Your task to perform on an android device: Go to network settings Image 0: 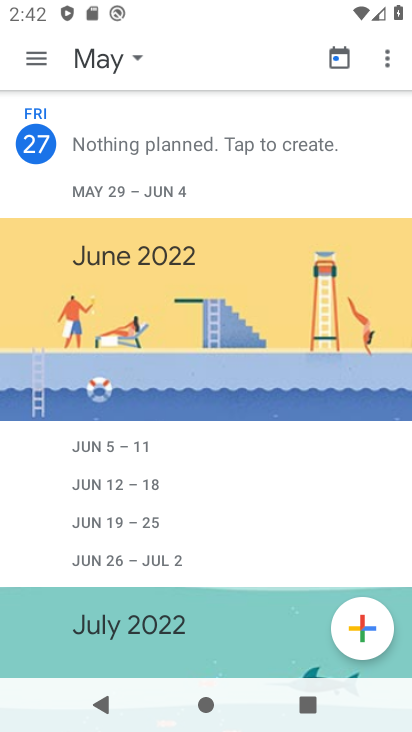
Step 0: press home button
Your task to perform on an android device: Go to network settings Image 1: 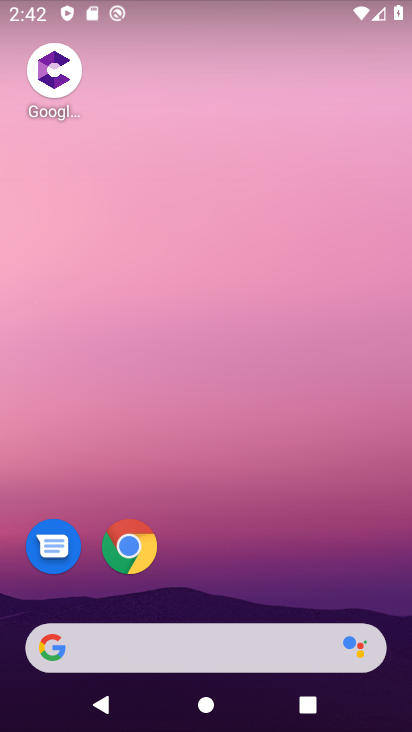
Step 1: drag from (177, 609) to (365, 79)
Your task to perform on an android device: Go to network settings Image 2: 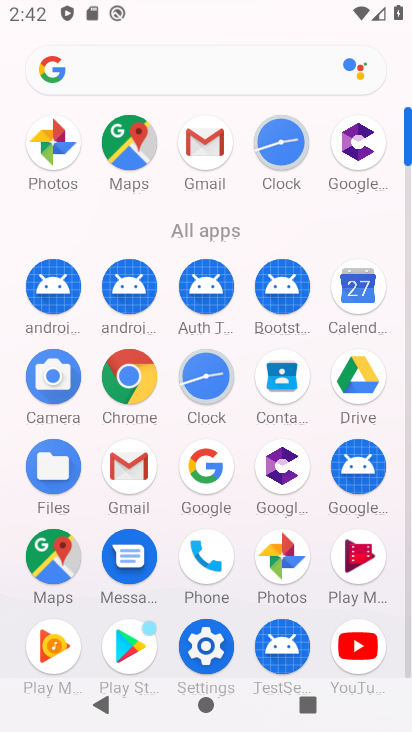
Step 2: drag from (164, 644) to (255, 328)
Your task to perform on an android device: Go to network settings Image 3: 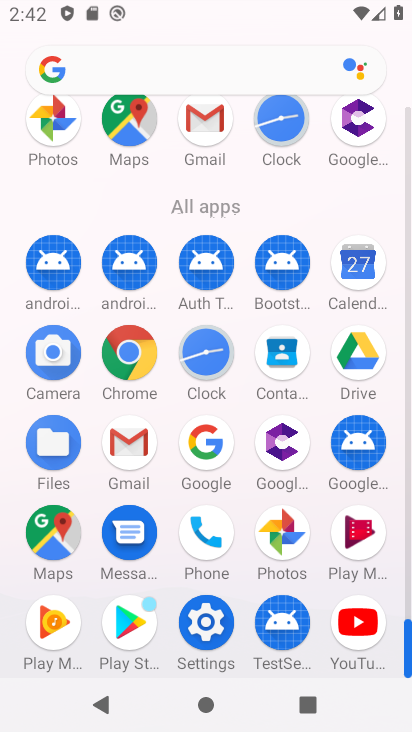
Step 3: click (206, 631)
Your task to perform on an android device: Go to network settings Image 4: 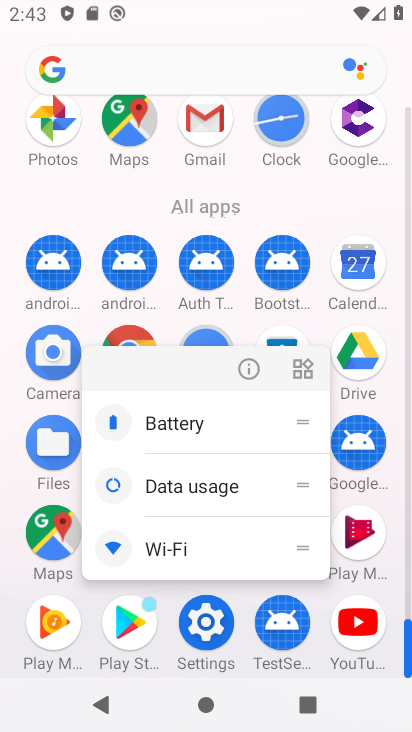
Step 4: click (206, 622)
Your task to perform on an android device: Go to network settings Image 5: 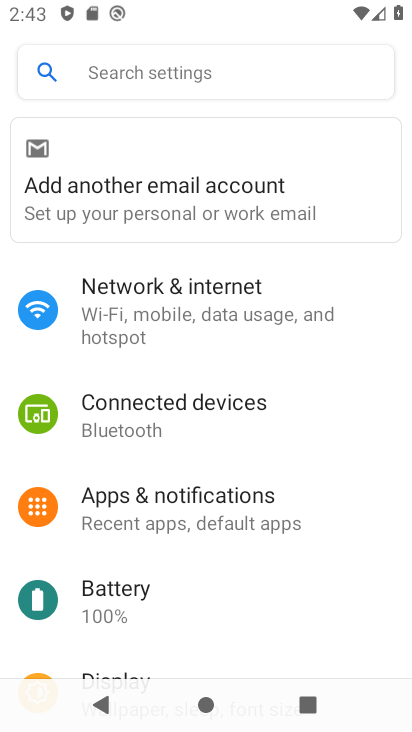
Step 5: click (262, 315)
Your task to perform on an android device: Go to network settings Image 6: 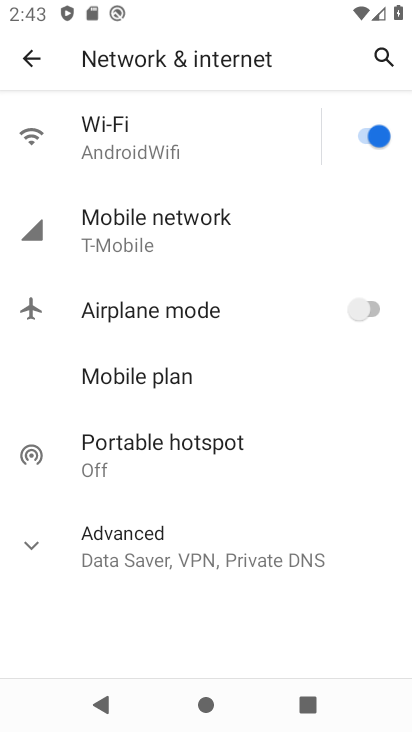
Step 6: click (193, 256)
Your task to perform on an android device: Go to network settings Image 7: 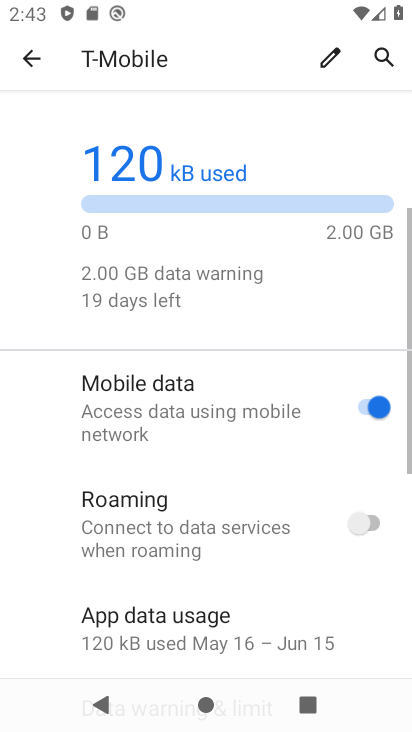
Step 7: task complete